Your task to perform on an android device: Open Yahoo.com Image 0: 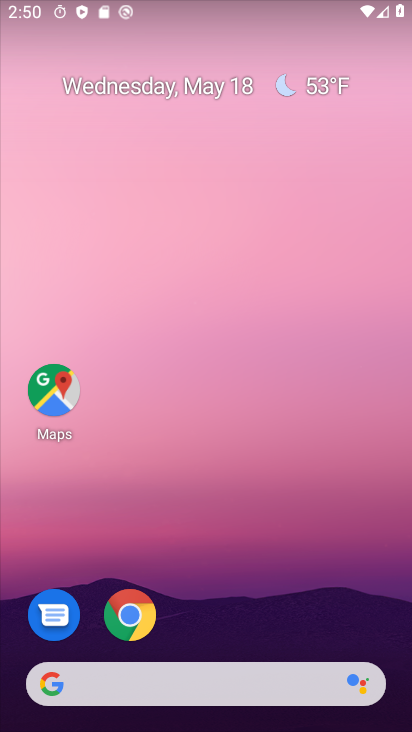
Step 0: click (139, 613)
Your task to perform on an android device: Open Yahoo.com Image 1: 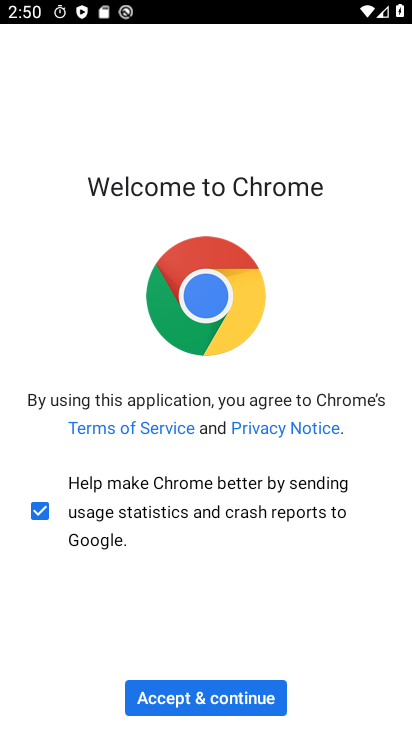
Step 1: click (252, 697)
Your task to perform on an android device: Open Yahoo.com Image 2: 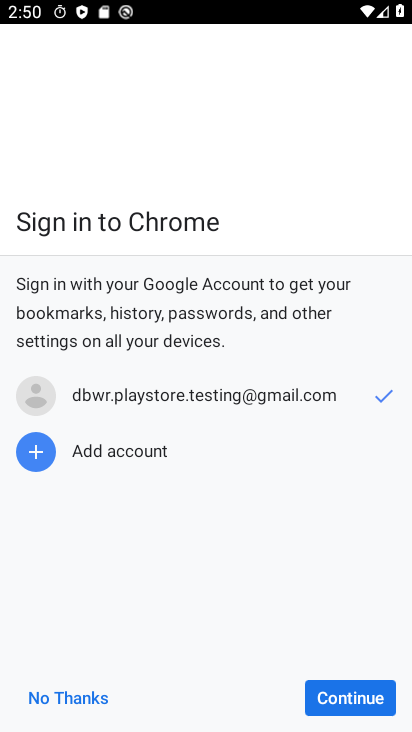
Step 2: click (375, 703)
Your task to perform on an android device: Open Yahoo.com Image 3: 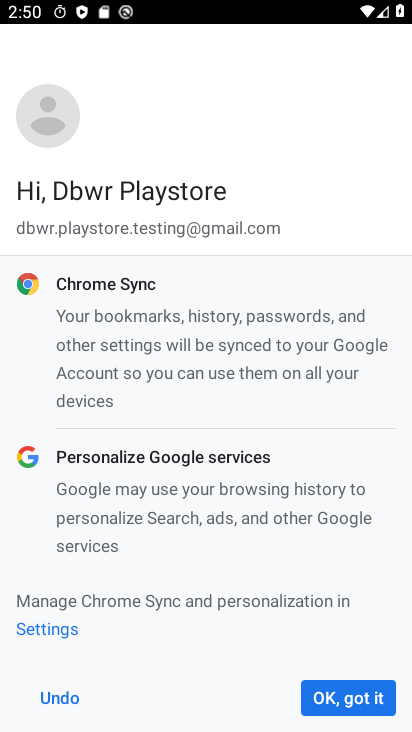
Step 3: click (375, 703)
Your task to perform on an android device: Open Yahoo.com Image 4: 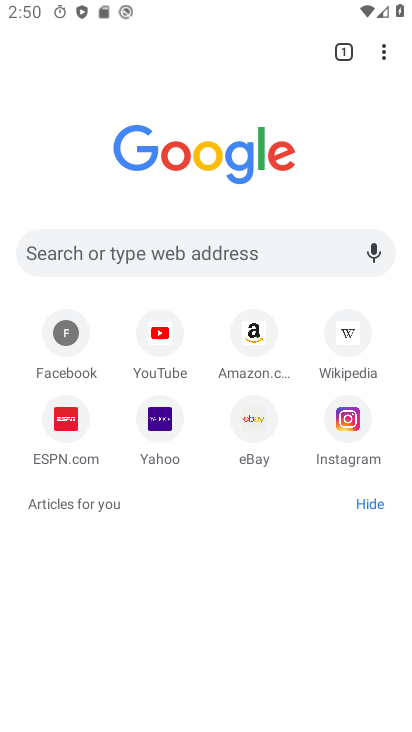
Step 4: click (161, 450)
Your task to perform on an android device: Open Yahoo.com Image 5: 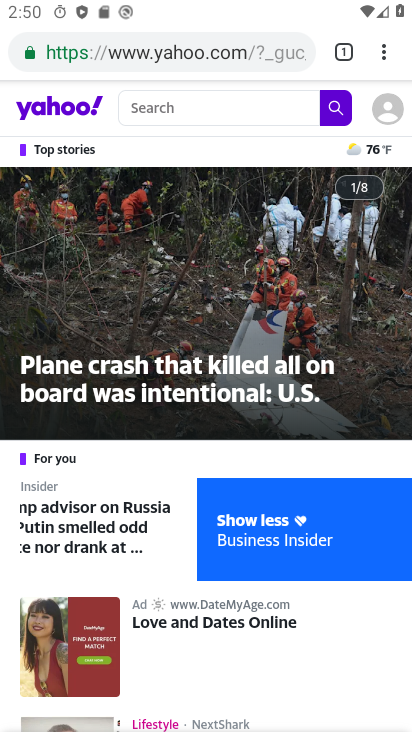
Step 5: task complete